Your task to perform on an android device: turn on improve location accuracy Image 0: 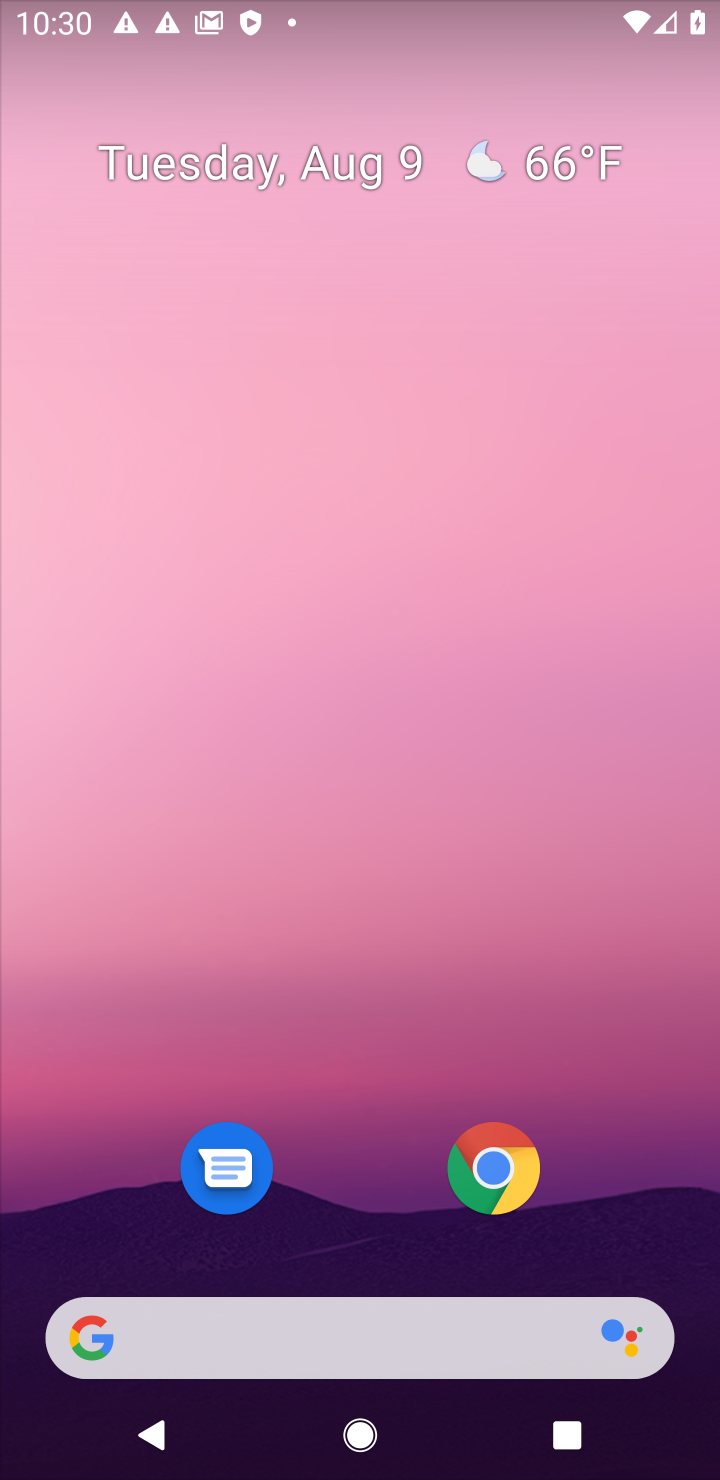
Step 0: drag from (325, 1214) to (472, 87)
Your task to perform on an android device: turn on improve location accuracy Image 1: 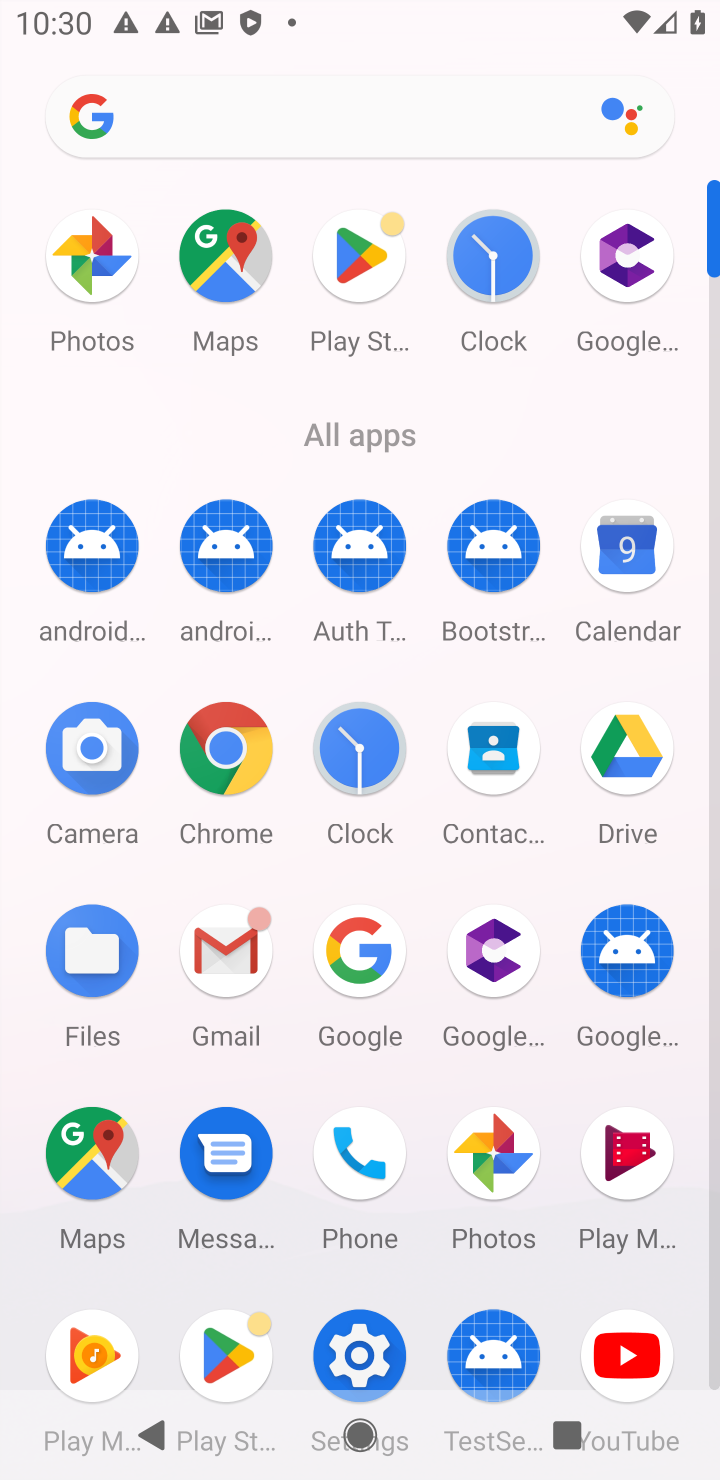
Step 1: click (89, 1126)
Your task to perform on an android device: turn on improve location accuracy Image 2: 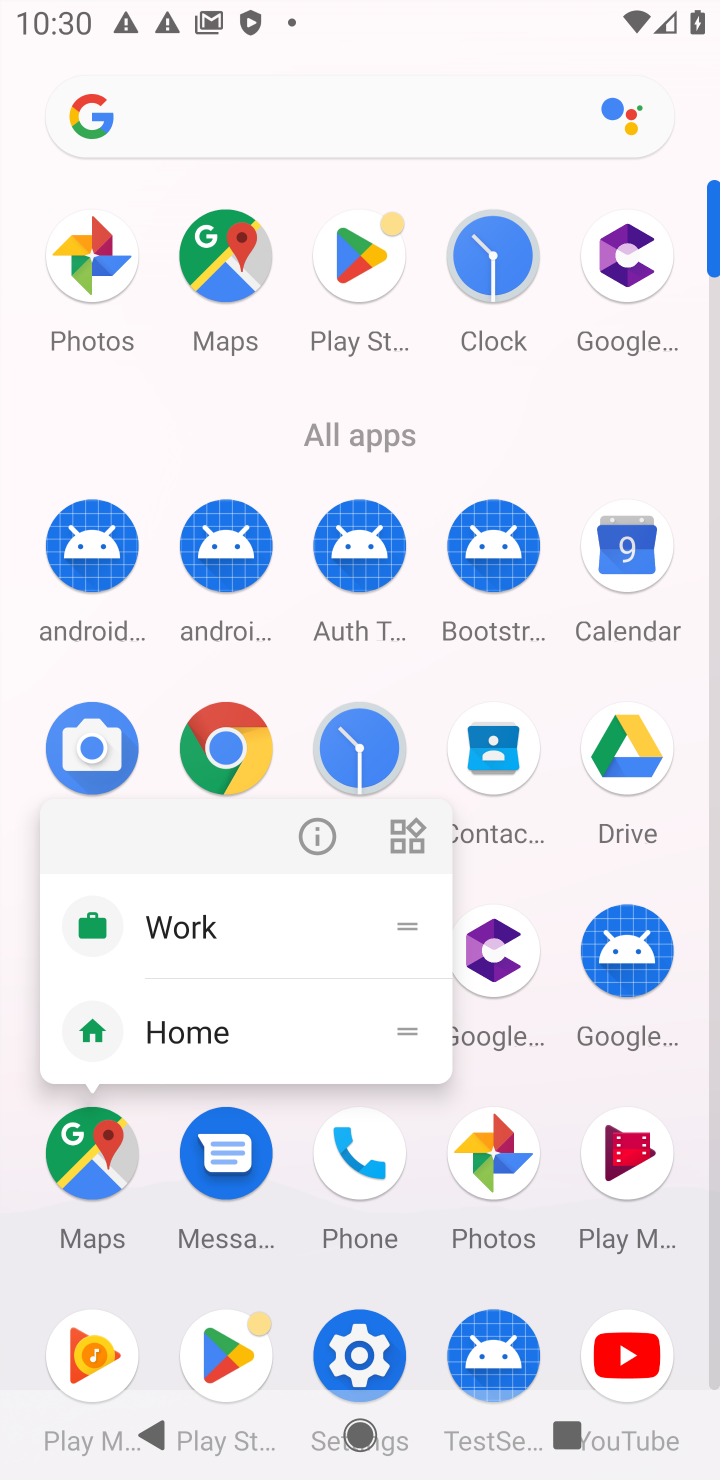
Step 2: click (82, 1140)
Your task to perform on an android device: turn on improve location accuracy Image 3: 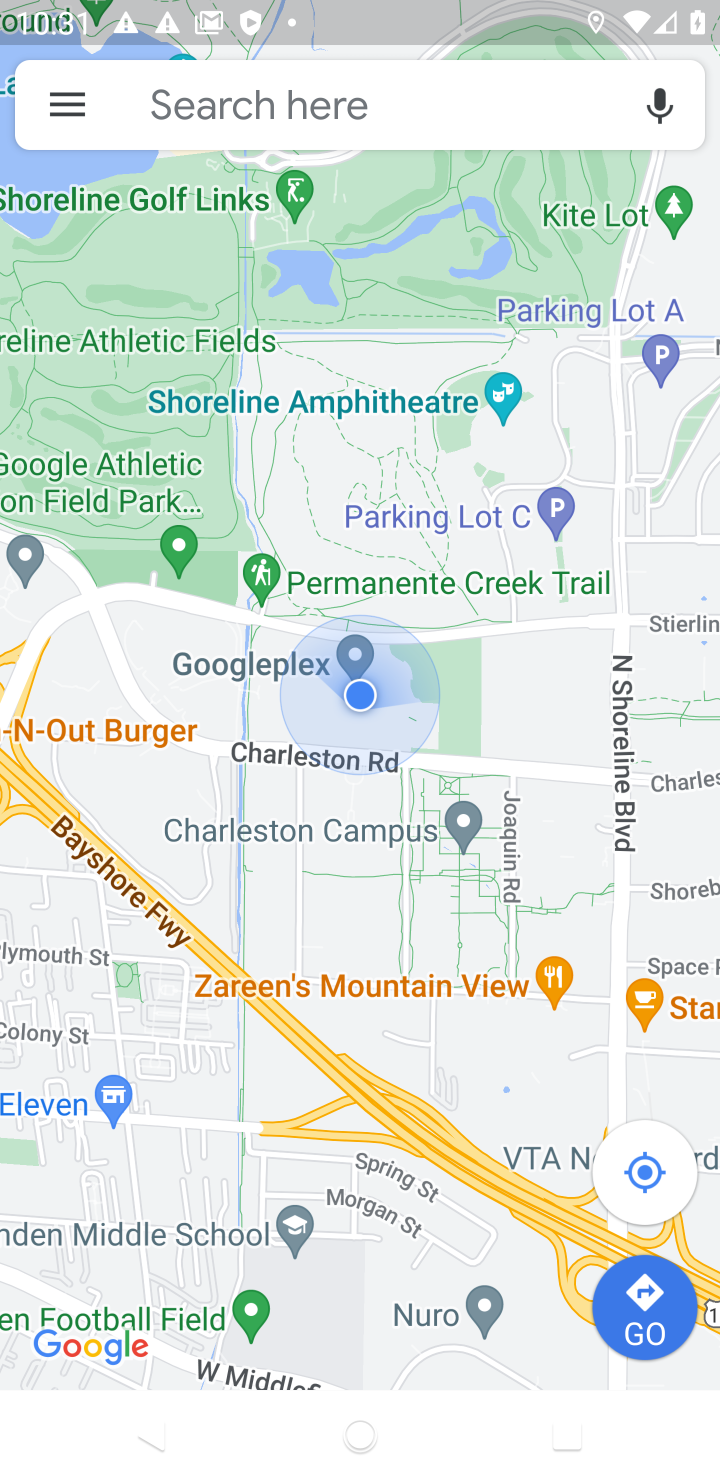
Step 3: click (79, 114)
Your task to perform on an android device: turn on improve location accuracy Image 4: 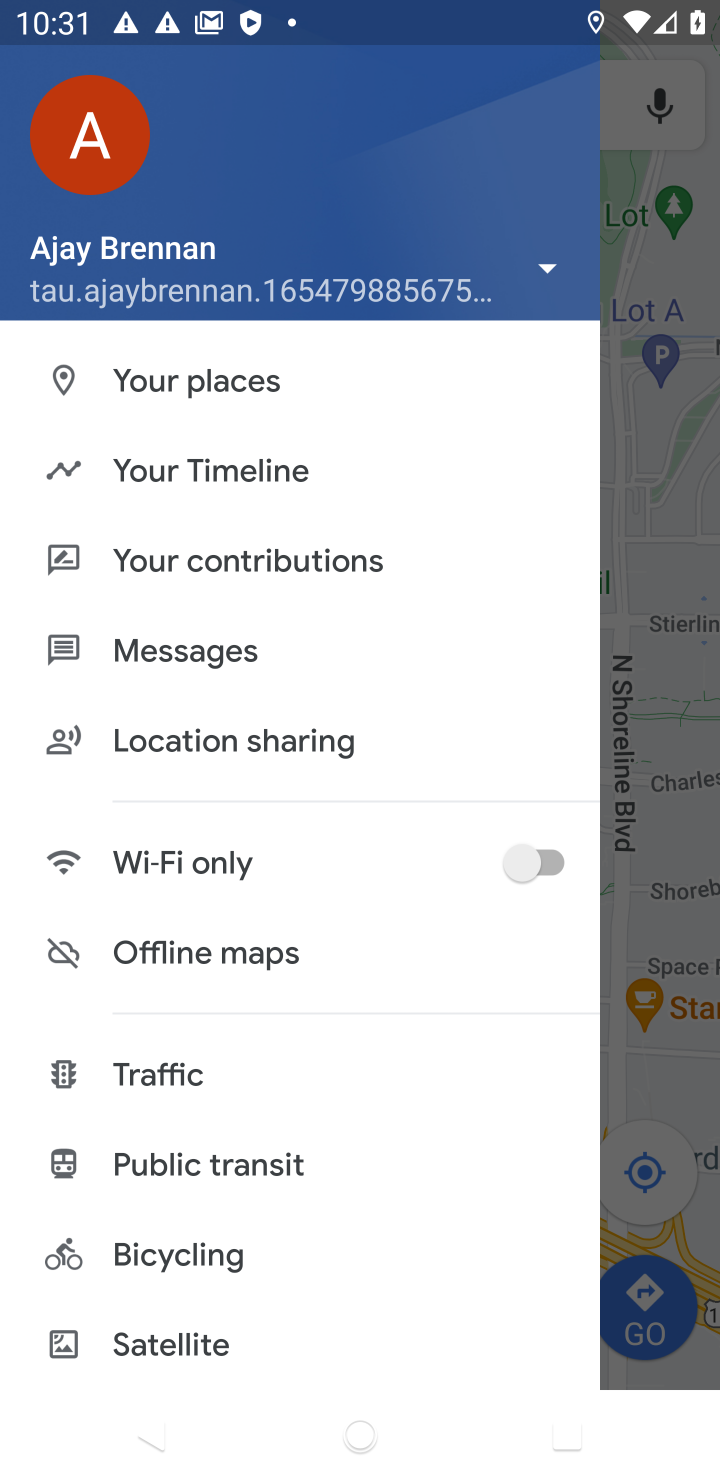
Step 4: press home button
Your task to perform on an android device: turn on improve location accuracy Image 5: 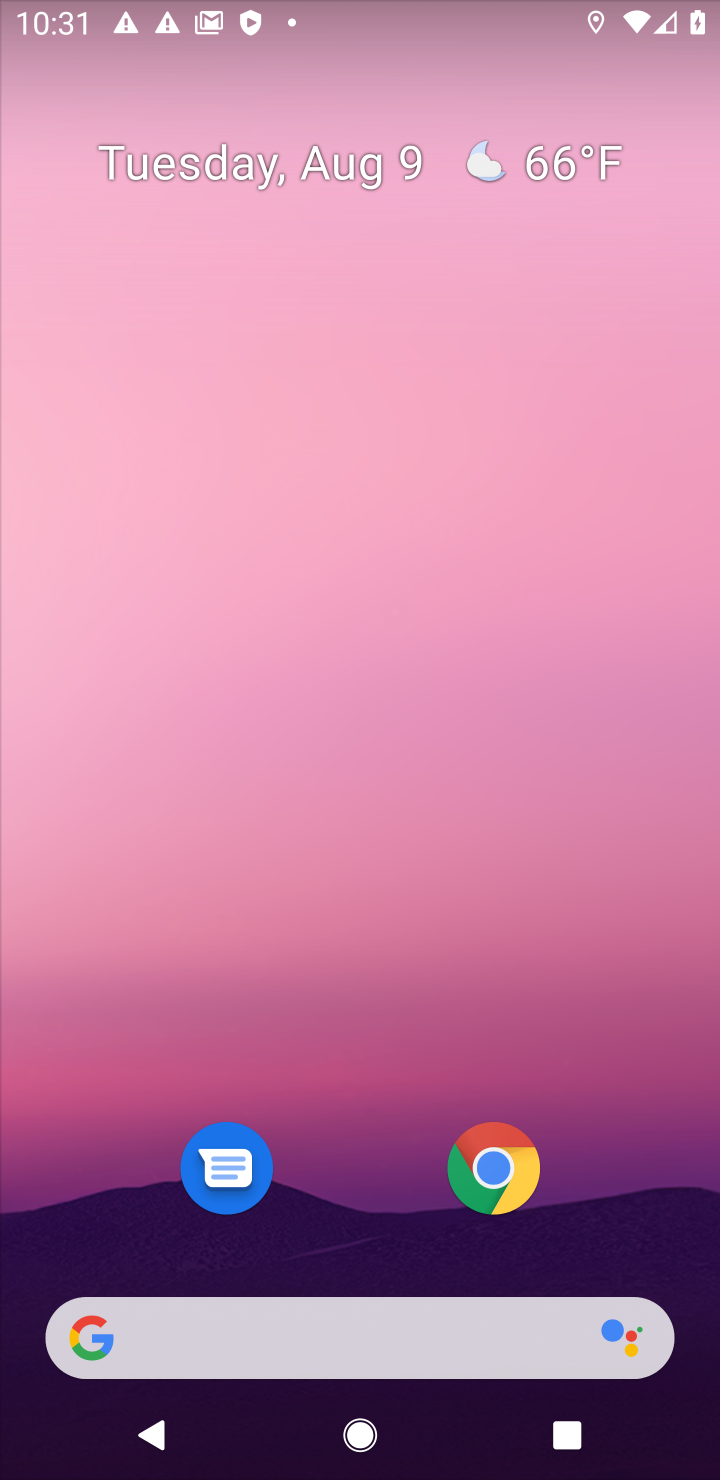
Step 5: drag from (393, 1162) to (497, 45)
Your task to perform on an android device: turn on improve location accuracy Image 6: 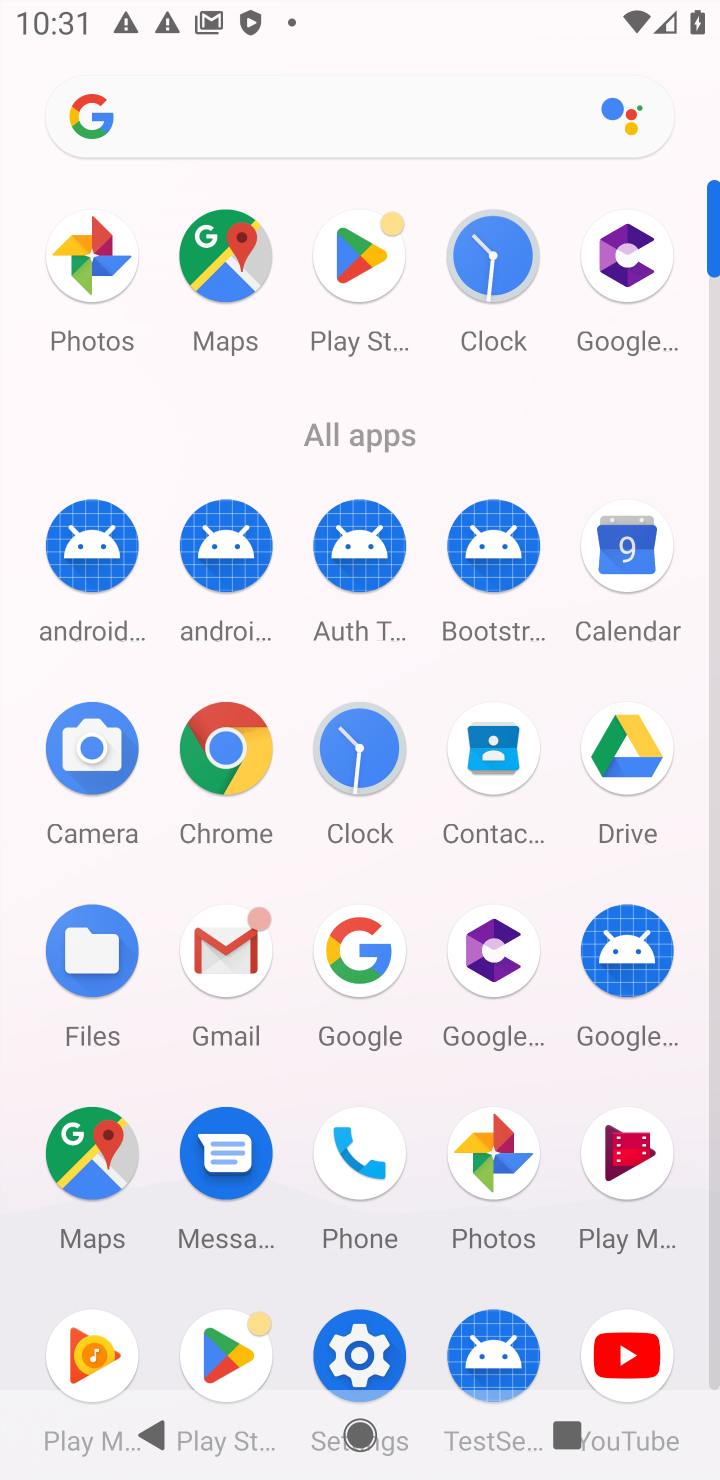
Step 6: click (369, 1347)
Your task to perform on an android device: turn on improve location accuracy Image 7: 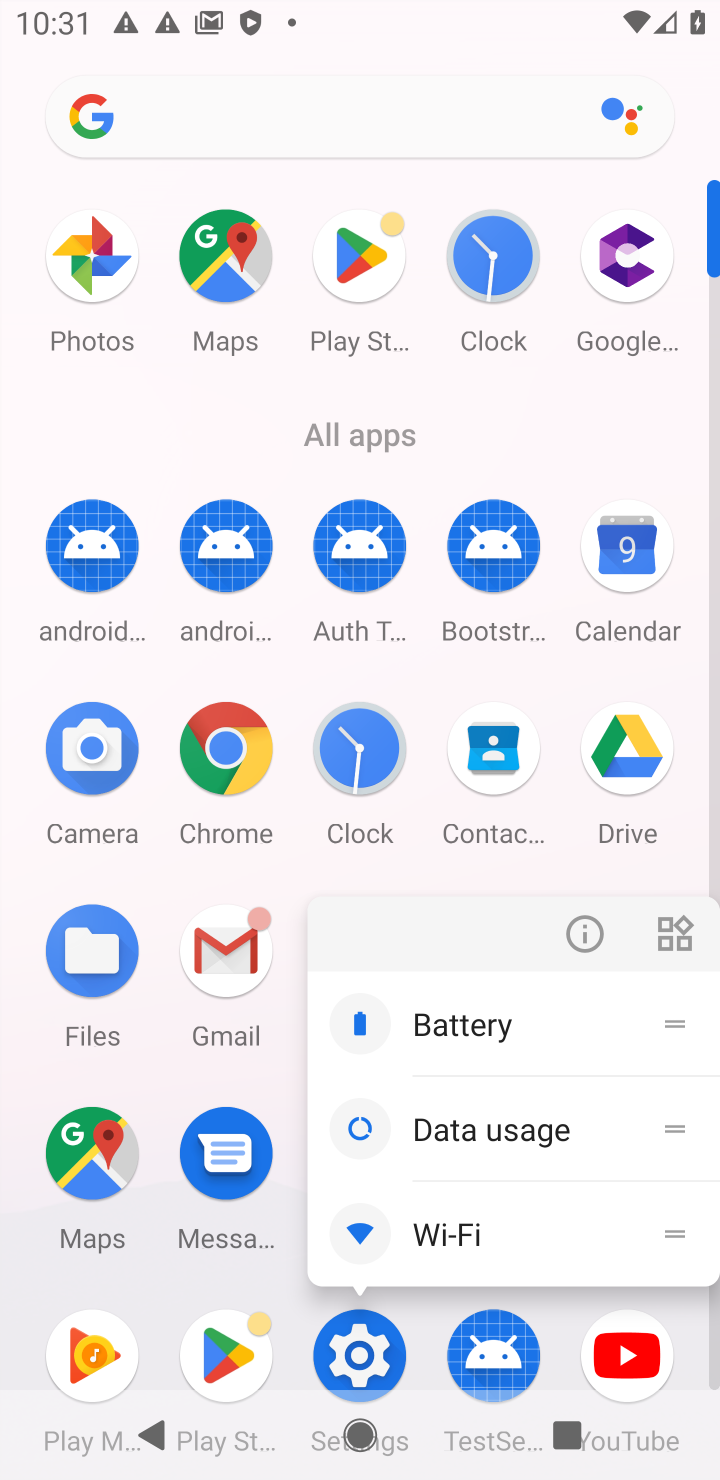
Step 7: click (369, 1347)
Your task to perform on an android device: turn on improve location accuracy Image 8: 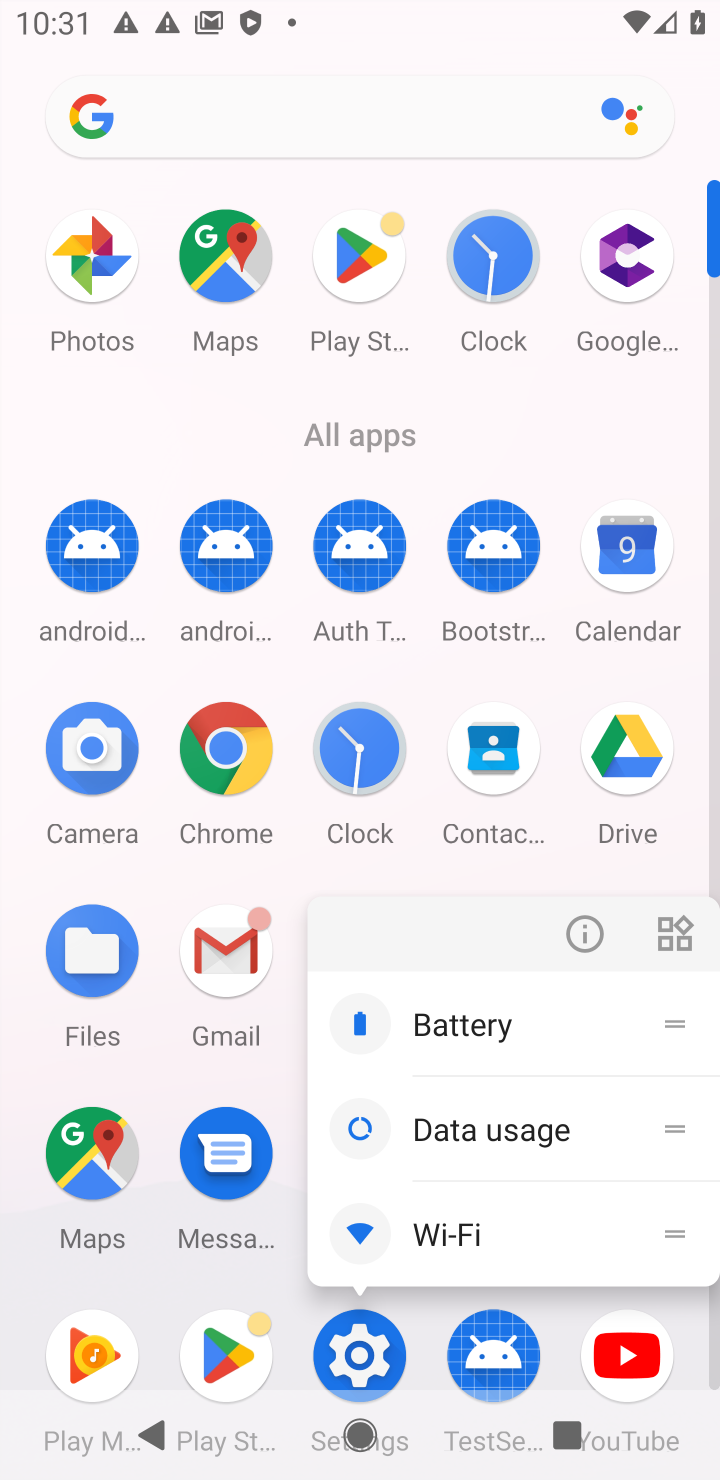
Step 8: click (366, 1347)
Your task to perform on an android device: turn on improve location accuracy Image 9: 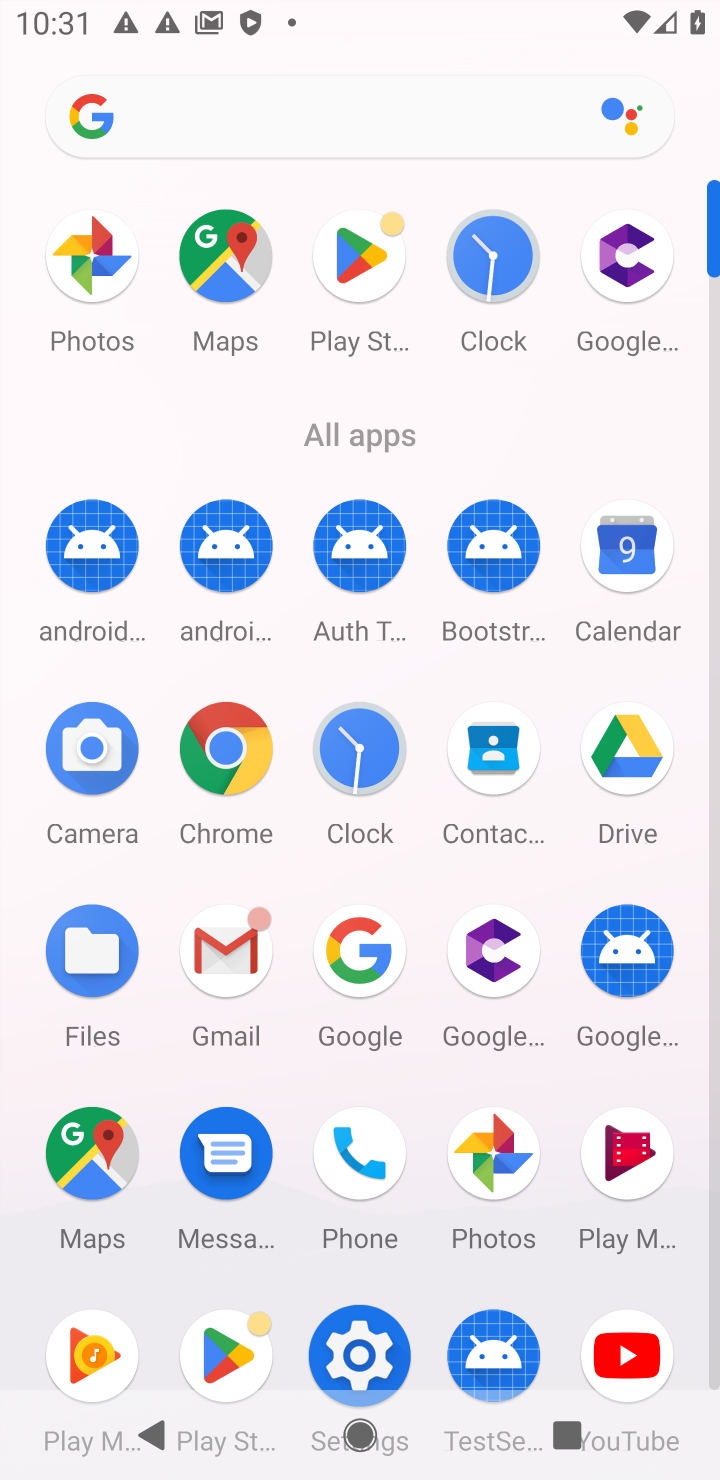
Step 9: click (340, 1350)
Your task to perform on an android device: turn on improve location accuracy Image 10: 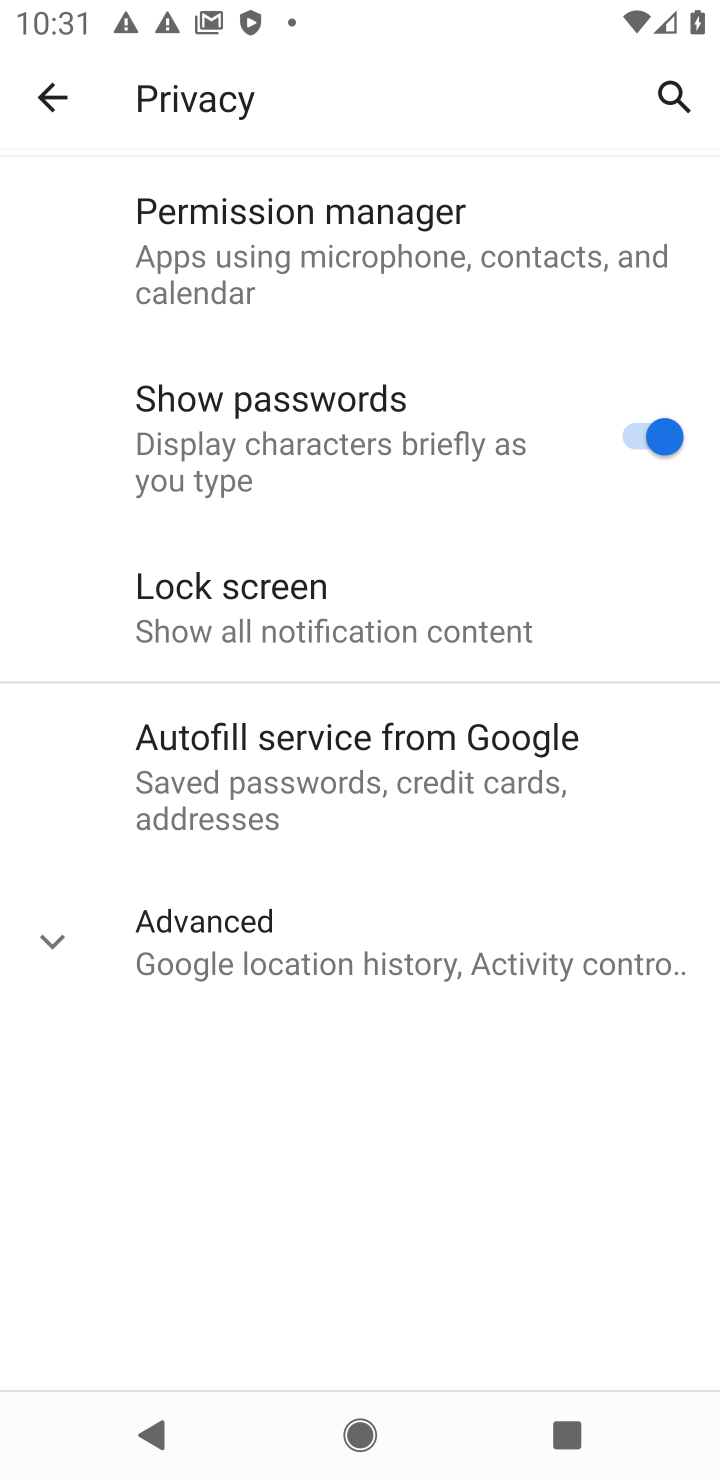
Step 10: click (51, 82)
Your task to perform on an android device: turn on improve location accuracy Image 11: 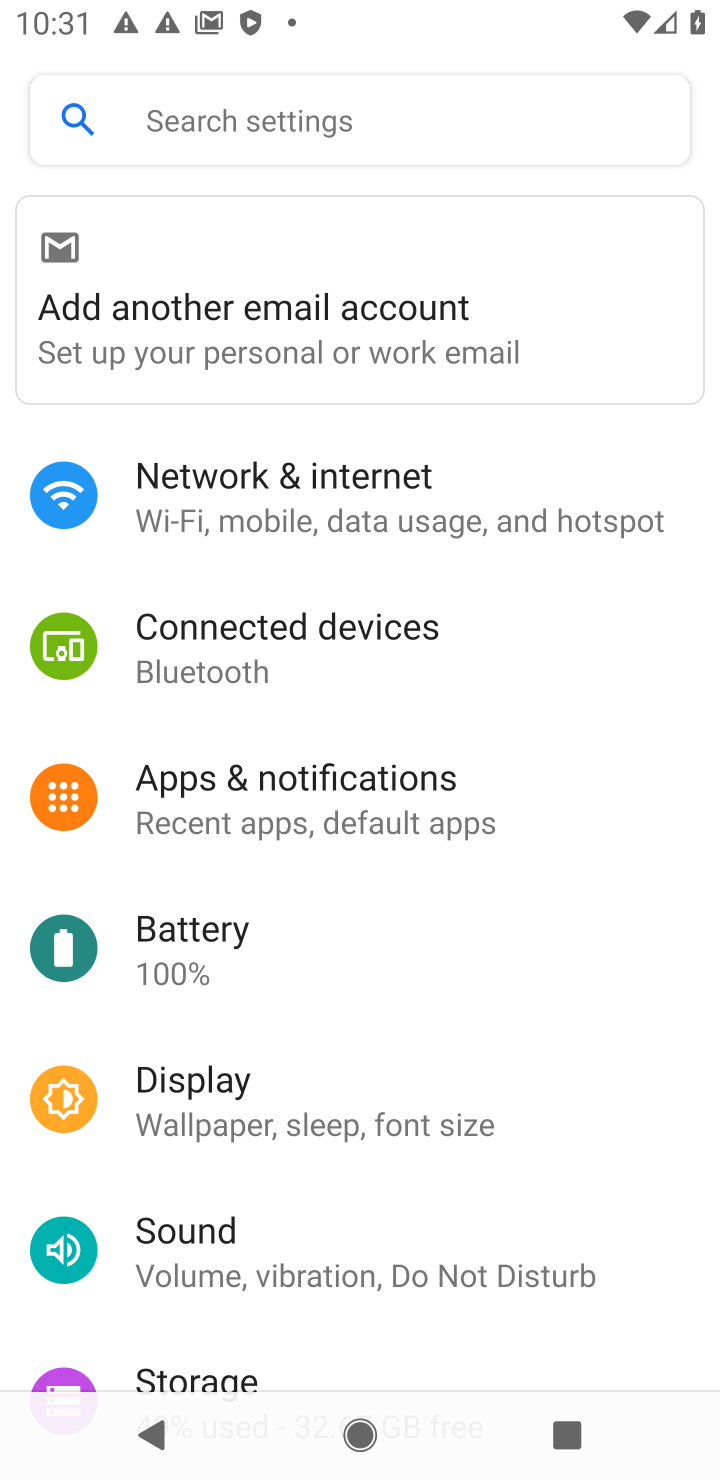
Step 11: drag from (319, 1202) to (416, 436)
Your task to perform on an android device: turn on improve location accuracy Image 12: 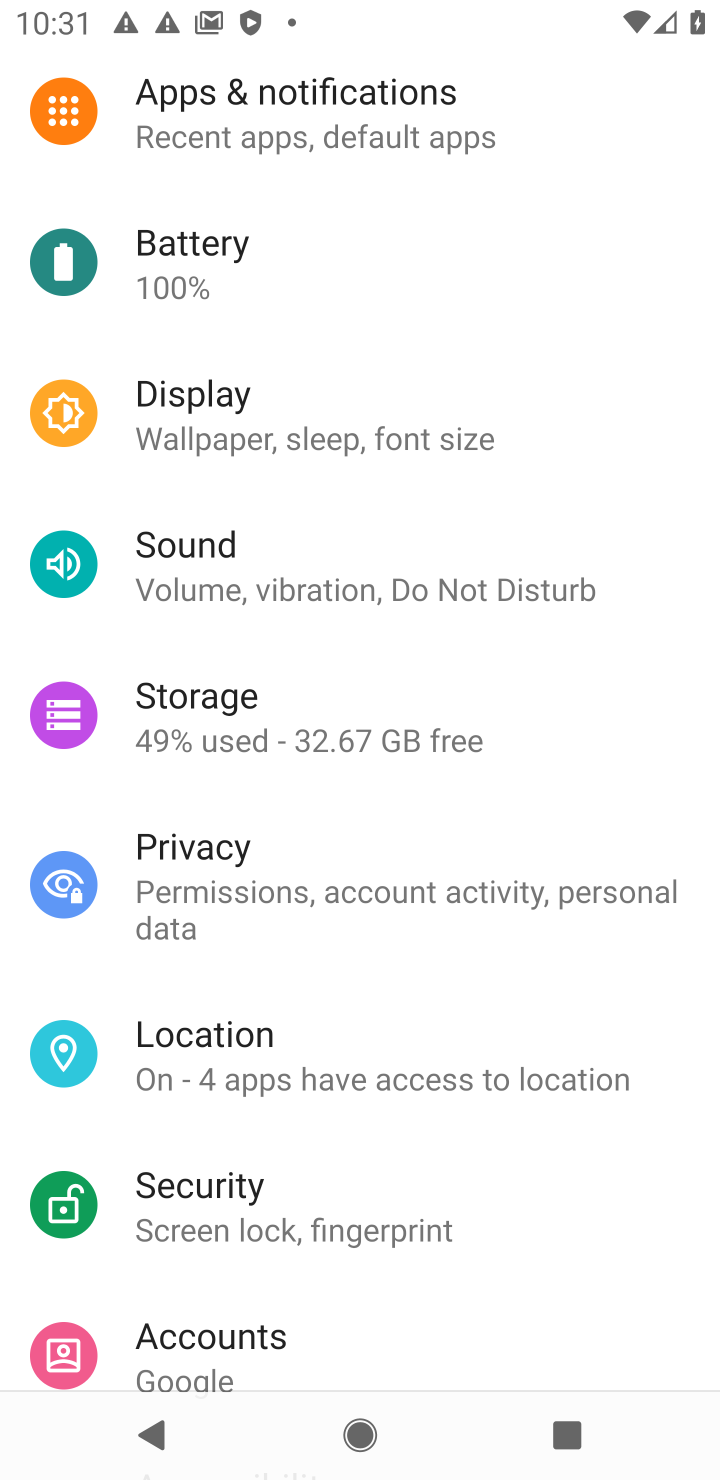
Step 12: click (240, 1049)
Your task to perform on an android device: turn on improve location accuracy Image 13: 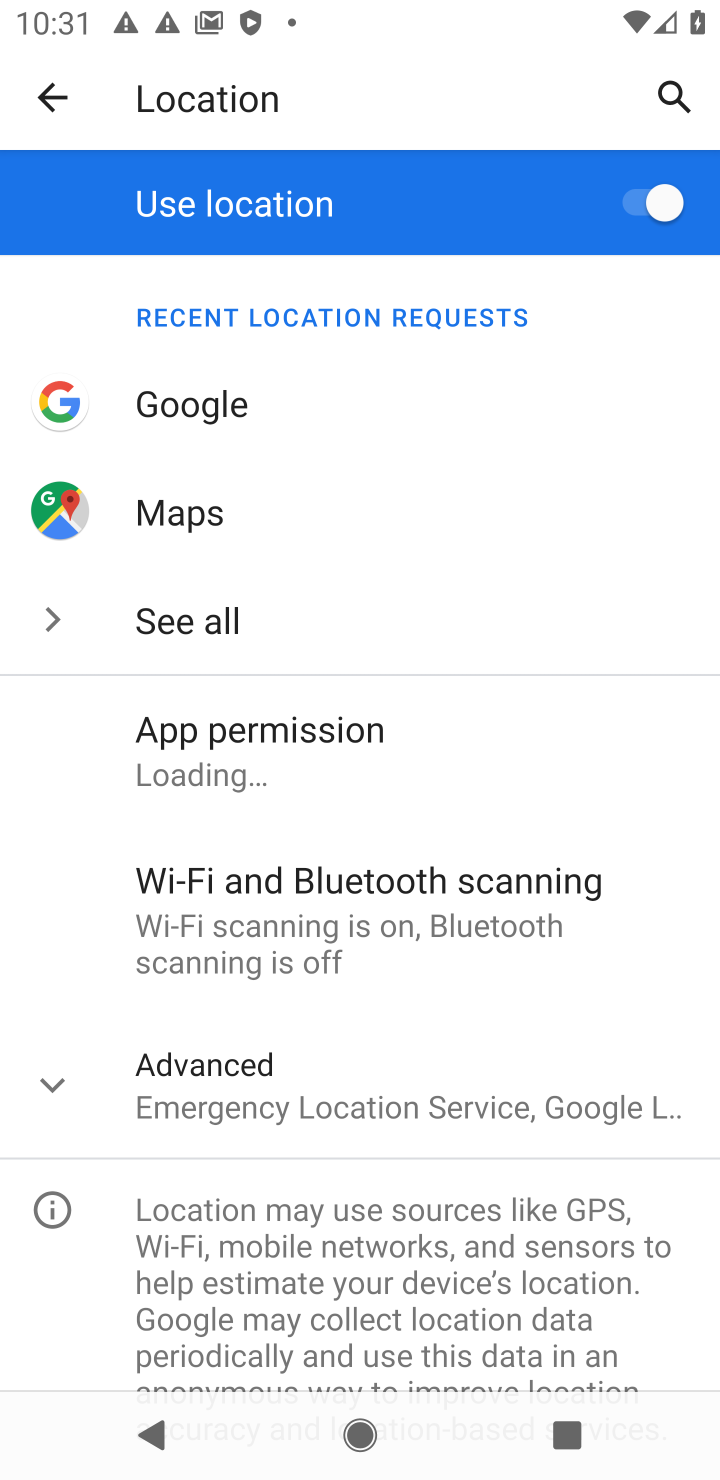
Step 13: drag from (429, 1175) to (456, 686)
Your task to perform on an android device: turn on improve location accuracy Image 14: 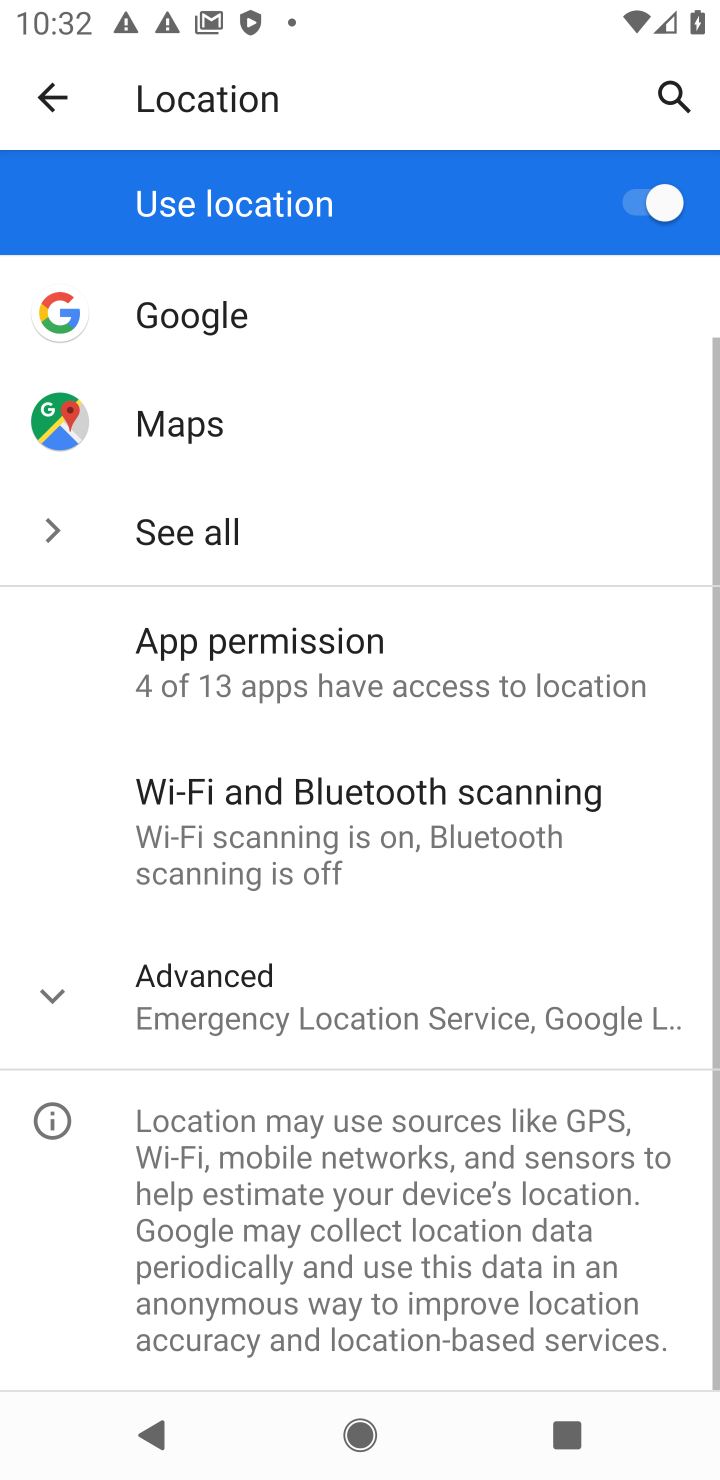
Step 14: click (333, 1014)
Your task to perform on an android device: turn on improve location accuracy Image 15: 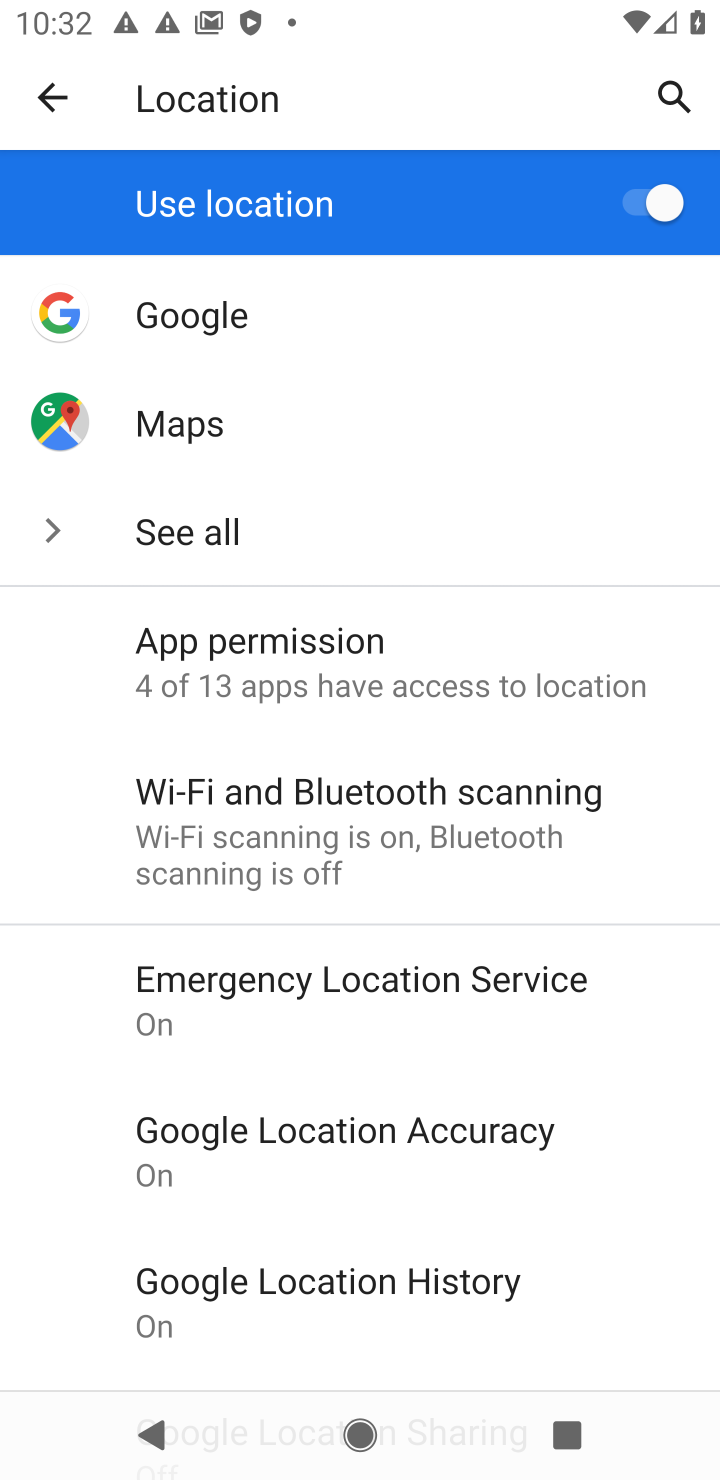
Step 15: click (371, 1113)
Your task to perform on an android device: turn on improve location accuracy Image 16: 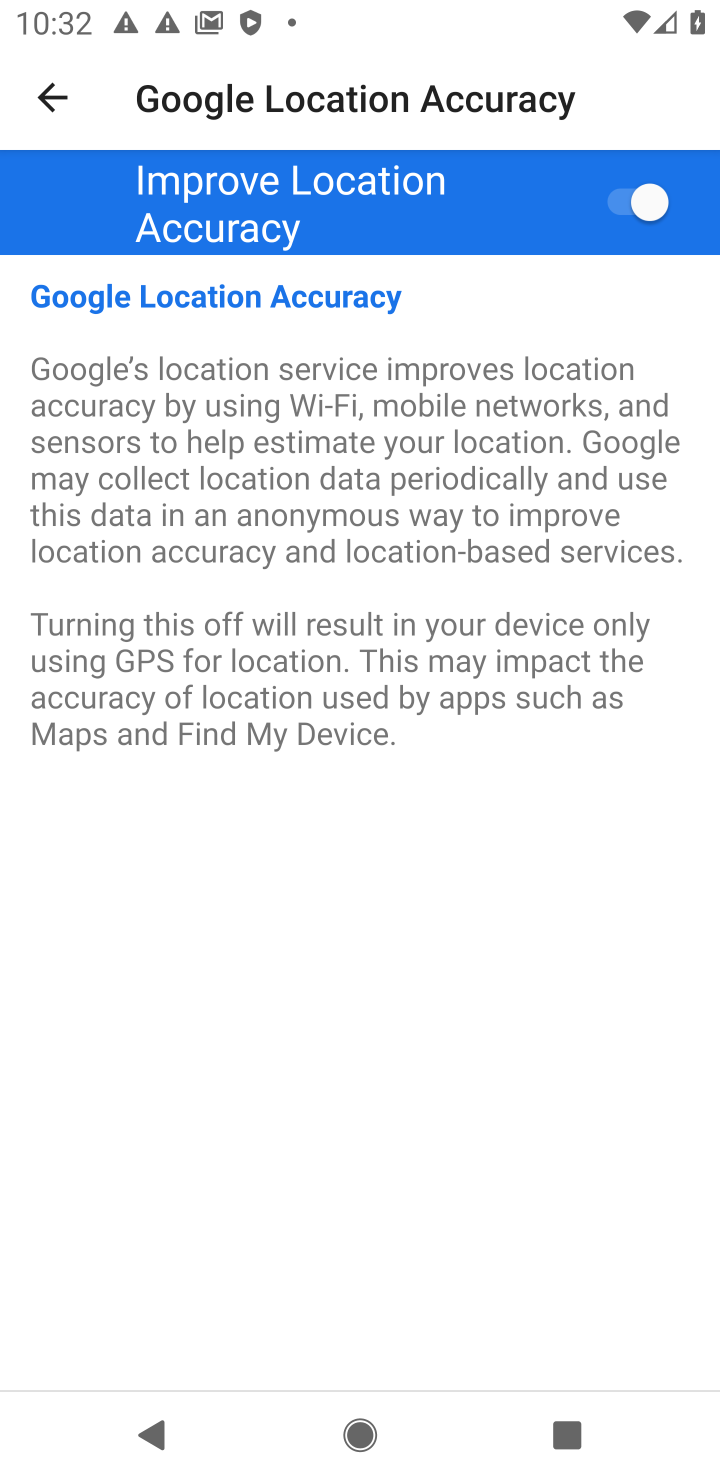
Step 16: task complete